Your task to perform on an android device: turn on location history Image 0: 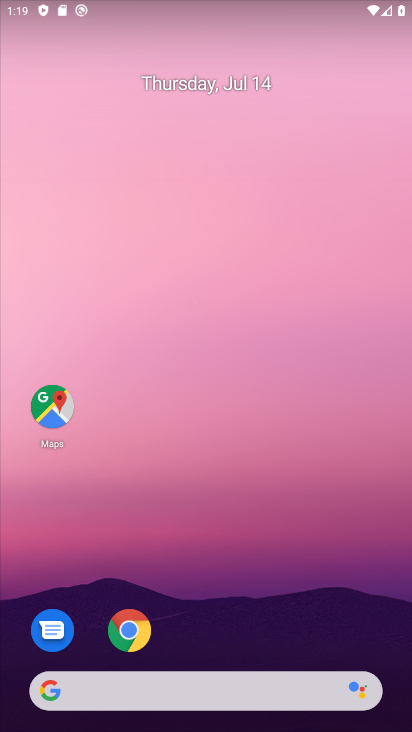
Step 0: drag from (216, 679) to (169, 34)
Your task to perform on an android device: turn on location history Image 1: 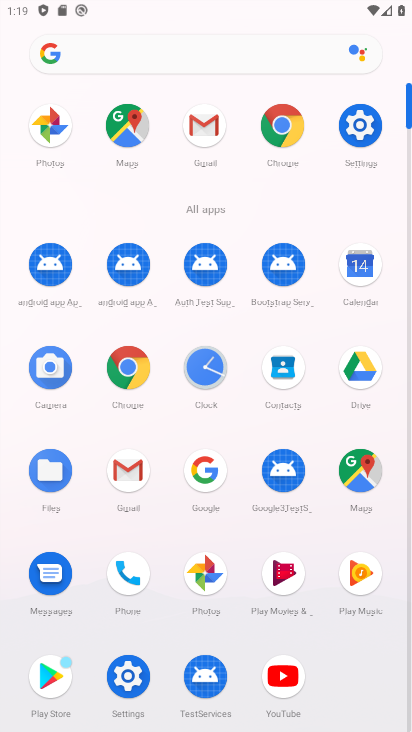
Step 1: click (361, 135)
Your task to perform on an android device: turn on location history Image 2: 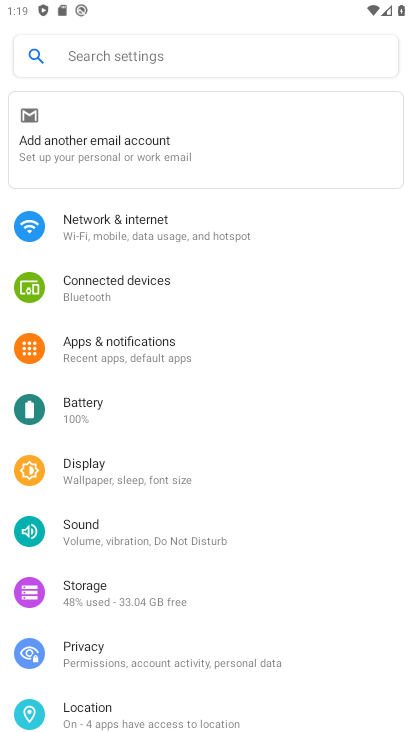
Step 2: click (115, 721)
Your task to perform on an android device: turn on location history Image 3: 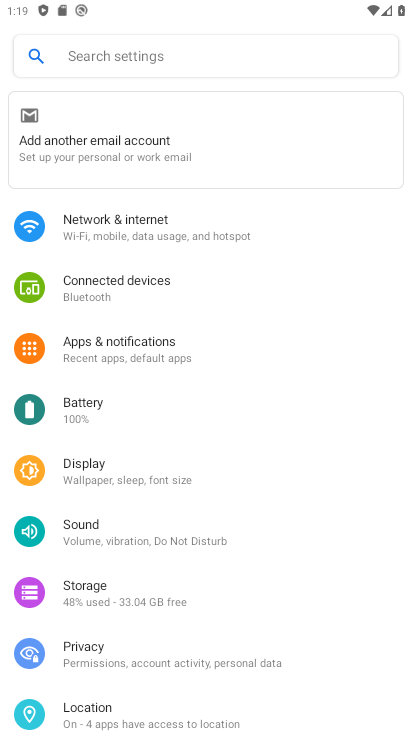
Step 3: click (115, 721)
Your task to perform on an android device: turn on location history Image 4: 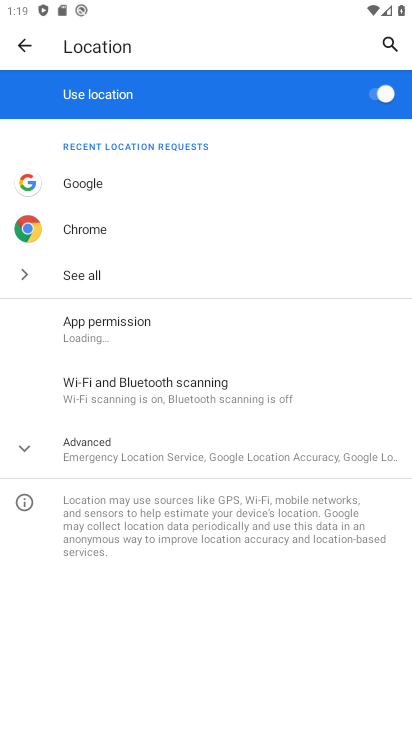
Step 4: click (177, 466)
Your task to perform on an android device: turn on location history Image 5: 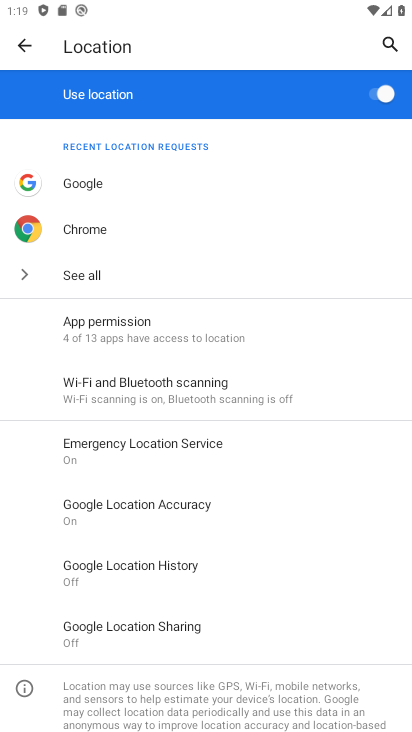
Step 5: click (183, 583)
Your task to perform on an android device: turn on location history Image 6: 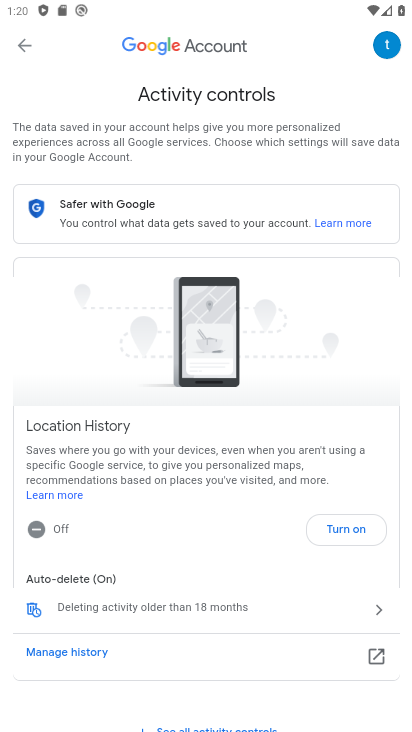
Step 6: click (332, 533)
Your task to perform on an android device: turn on location history Image 7: 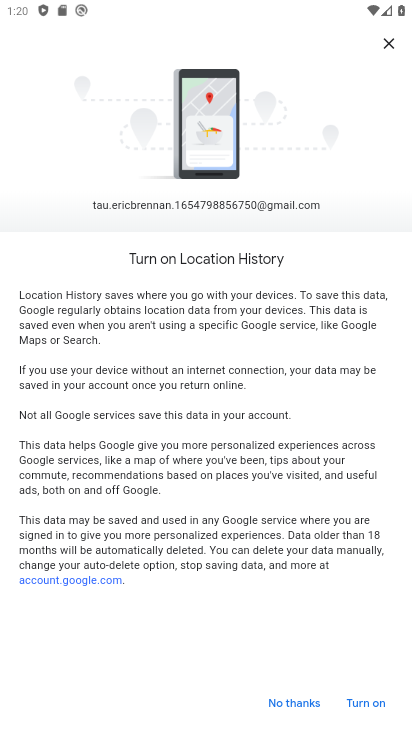
Step 7: click (360, 703)
Your task to perform on an android device: turn on location history Image 8: 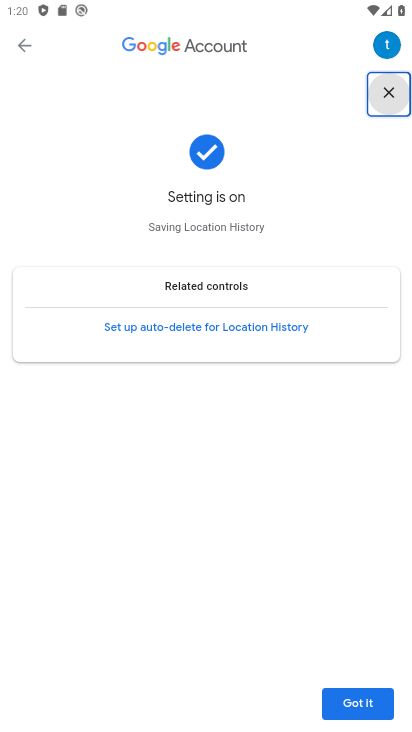
Step 8: click (387, 712)
Your task to perform on an android device: turn on location history Image 9: 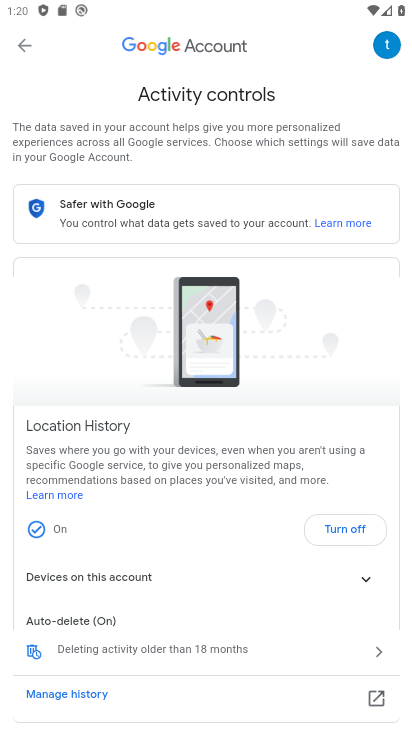
Step 9: task complete